Your task to perform on an android device: uninstall "Fetch Rewards" Image 0: 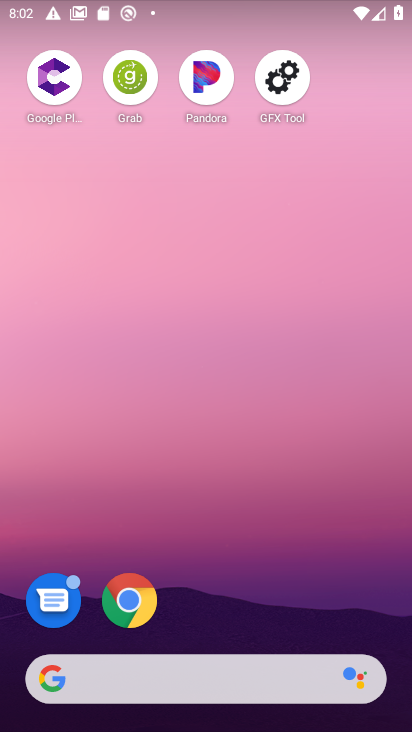
Step 0: press home button
Your task to perform on an android device: uninstall "Fetch Rewards" Image 1: 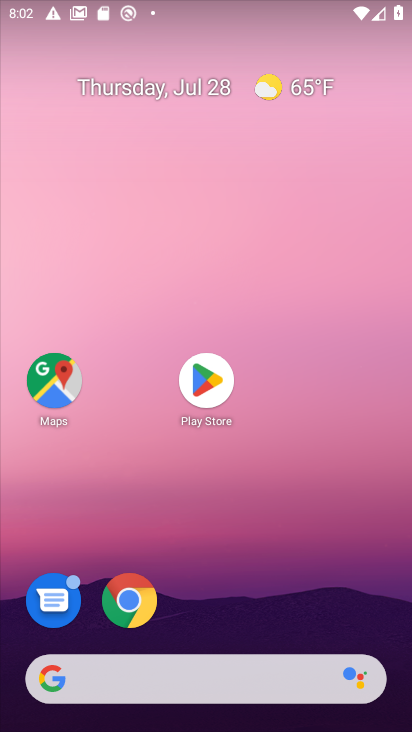
Step 1: drag from (216, 648) to (368, 47)
Your task to perform on an android device: uninstall "Fetch Rewards" Image 2: 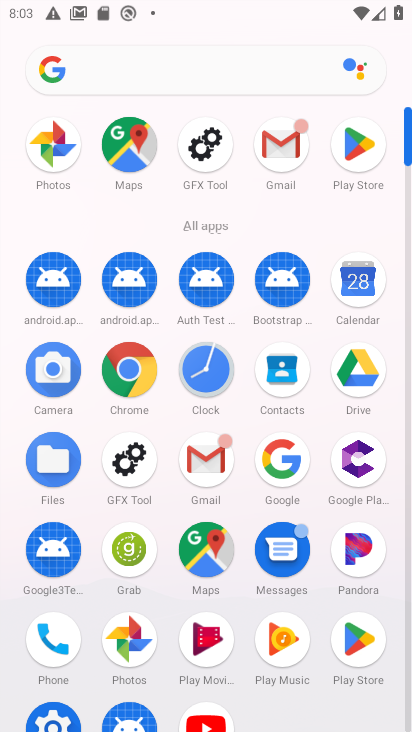
Step 2: click (353, 640)
Your task to perform on an android device: uninstall "Fetch Rewards" Image 3: 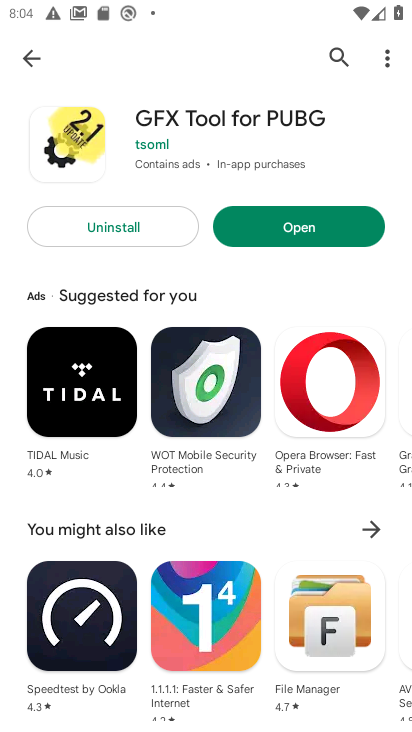
Step 3: click (342, 48)
Your task to perform on an android device: uninstall "Fetch Rewards" Image 4: 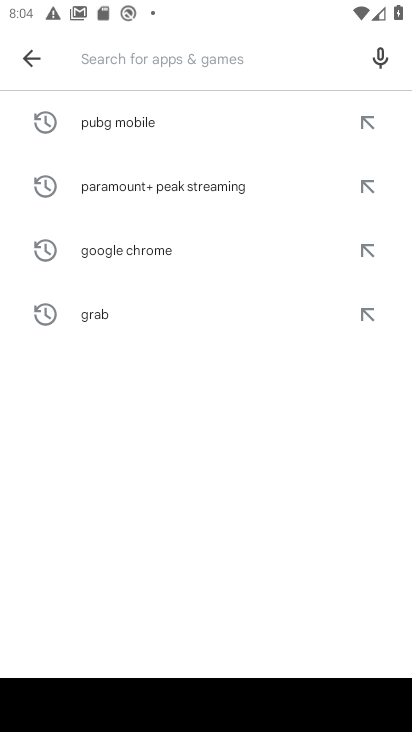
Step 4: type "Fetch Rewards"
Your task to perform on an android device: uninstall "Fetch Rewards" Image 5: 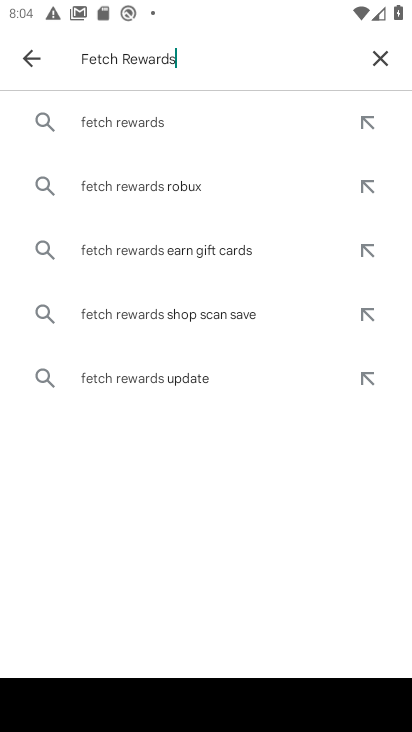
Step 5: click (132, 125)
Your task to perform on an android device: uninstall "Fetch Rewards" Image 6: 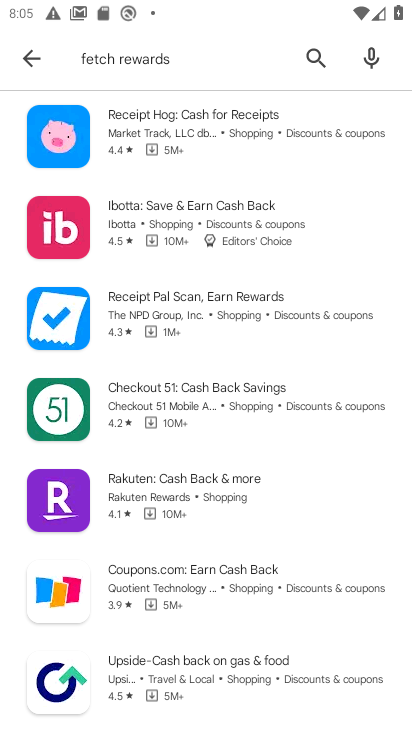
Step 6: task complete